Your task to perform on an android device: Go to location settings Image 0: 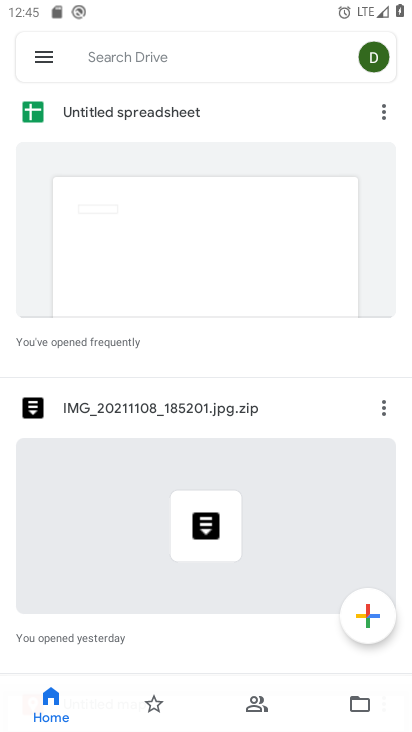
Step 0: press home button
Your task to perform on an android device: Go to location settings Image 1: 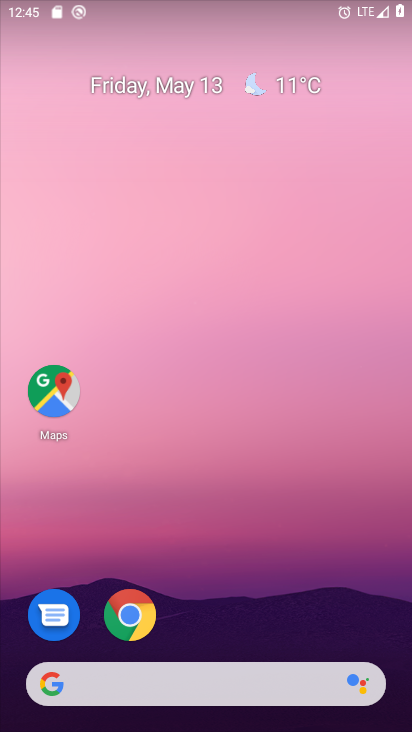
Step 1: drag from (264, 550) to (261, 0)
Your task to perform on an android device: Go to location settings Image 2: 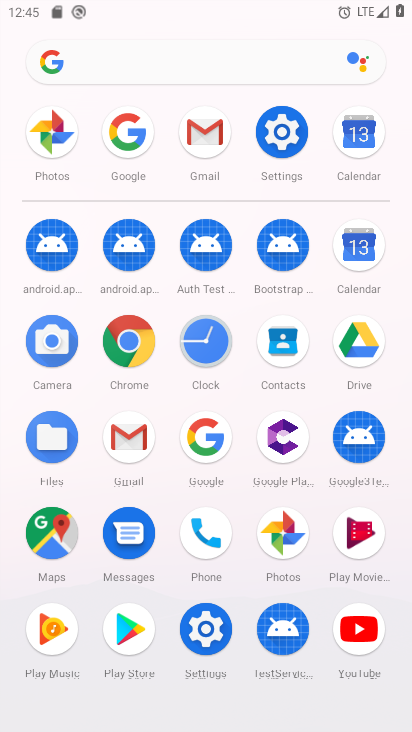
Step 2: click (282, 126)
Your task to perform on an android device: Go to location settings Image 3: 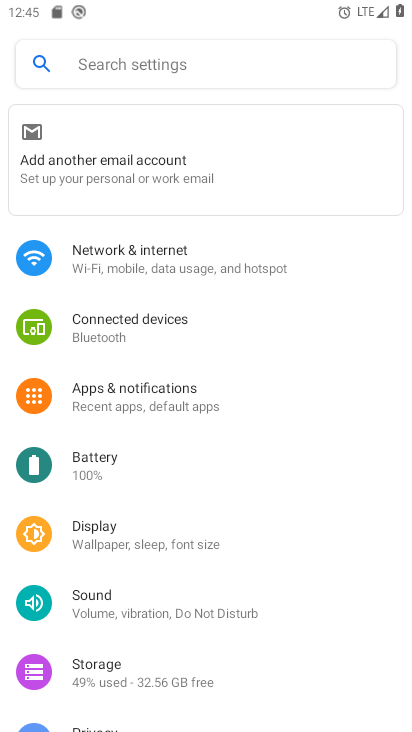
Step 3: drag from (130, 579) to (191, 221)
Your task to perform on an android device: Go to location settings Image 4: 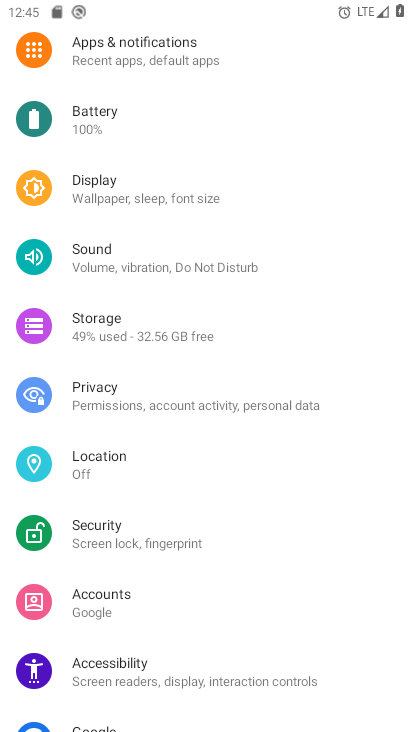
Step 4: click (190, 465)
Your task to perform on an android device: Go to location settings Image 5: 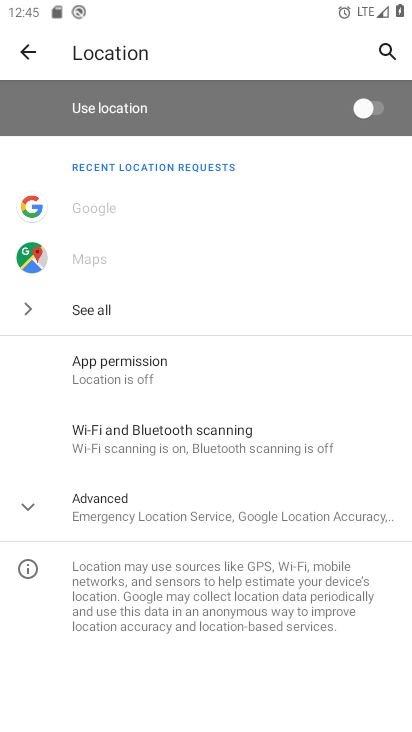
Step 5: task complete